Your task to perform on an android device: change alarm snooze length Image 0: 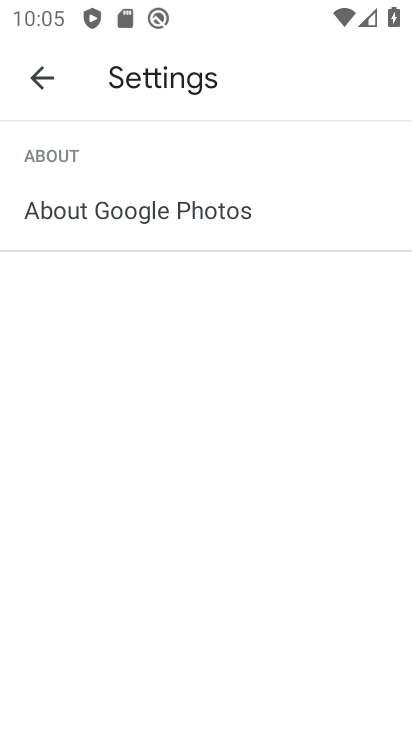
Step 0: press back button
Your task to perform on an android device: change alarm snooze length Image 1: 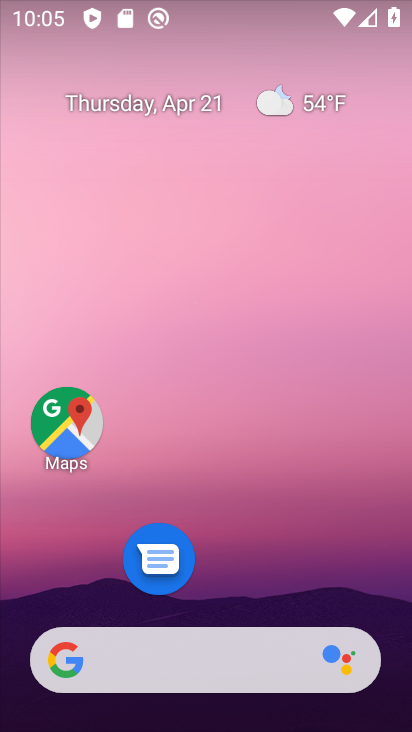
Step 1: drag from (231, 518) to (284, 27)
Your task to perform on an android device: change alarm snooze length Image 2: 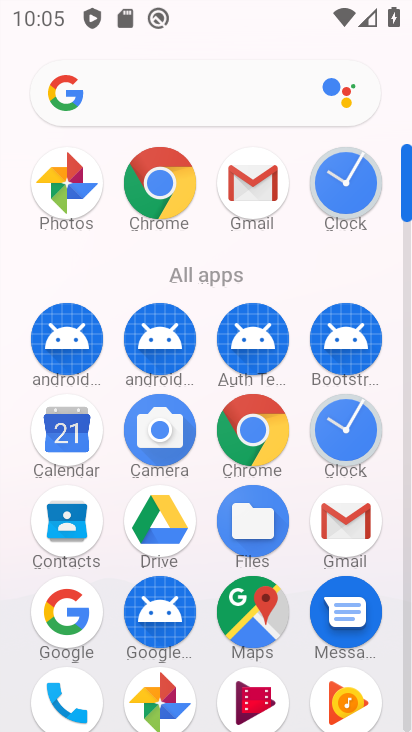
Step 2: click (342, 175)
Your task to perform on an android device: change alarm snooze length Image 3: 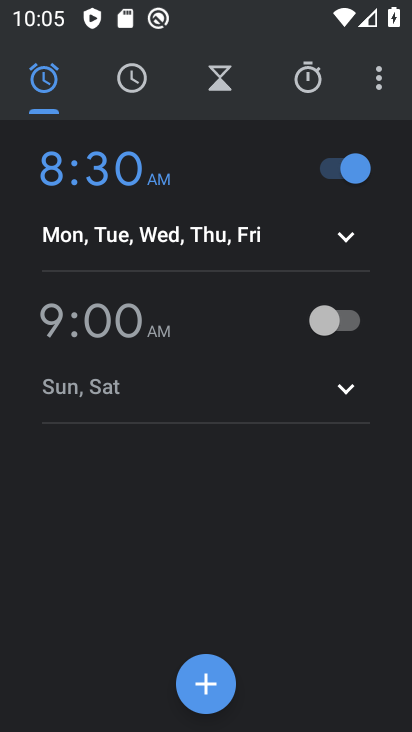
Step 3: click (376, 69)
Your task to perform on an android device: change alarm snooze length Image 4: 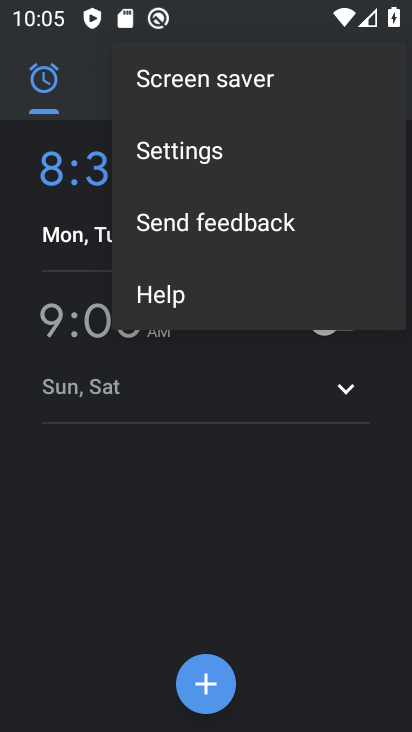
Step 4: click (206, 153)
Your task to perform on an android device: change alarm snooze length Image 5: 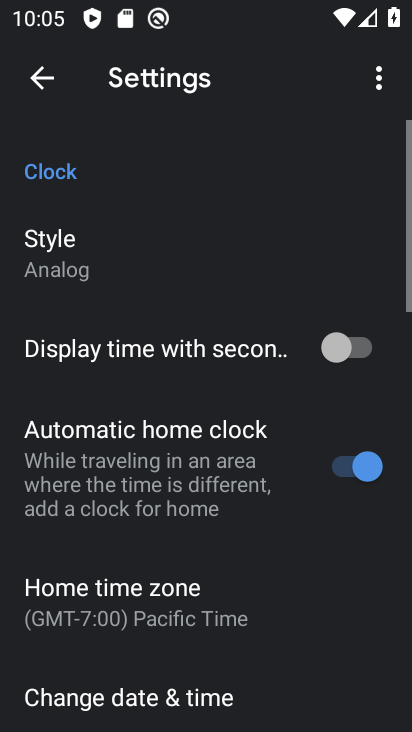
Step 5: drag from (193, 547) to (223, 85)
Your task to perform on an android device: change alarm snooze length Image 6: 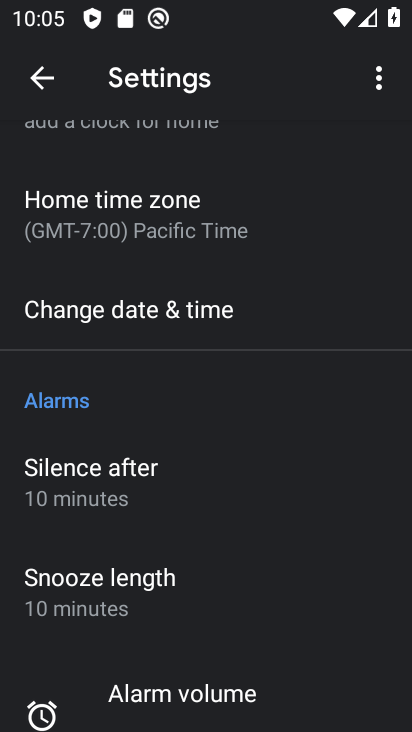
Step 6: click (134, 608)
Your task to perform on an android device: change alarm snooze length Image 7: 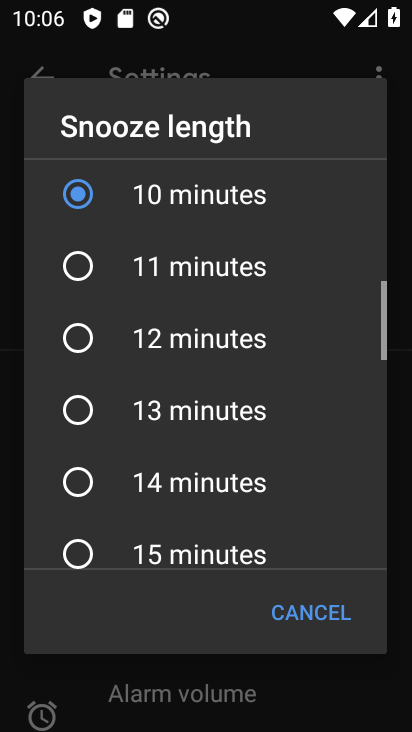
Step 7: click (88, 264)
Your task to perform on an android device: change alarm snooze length Image 8: 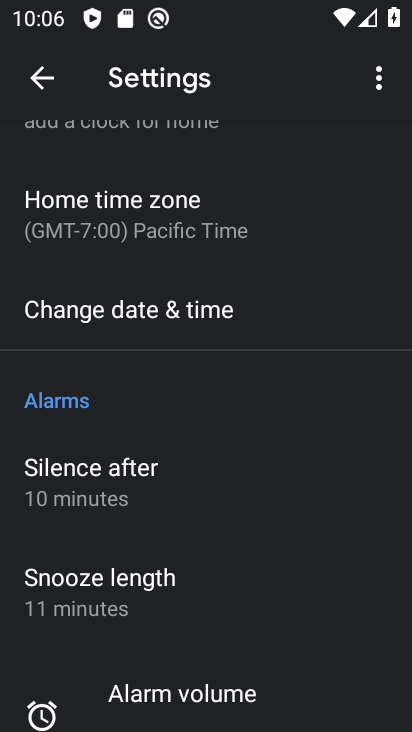
Step 8: task complete